Your task to perform on an android device: Open battery settings Image 0: 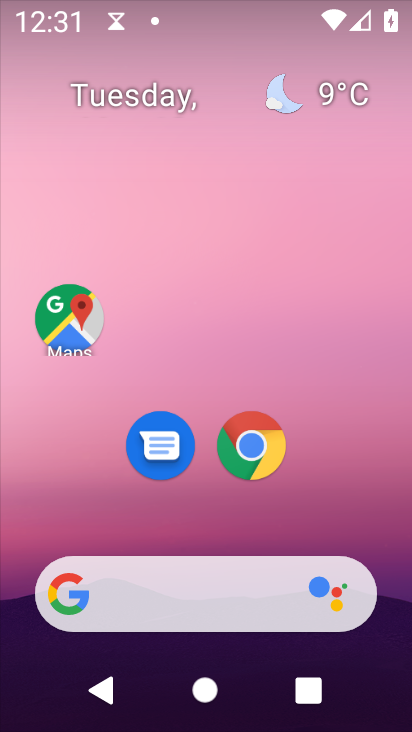
Step 0: drag from (244, 621) to (287, 2)
Your task to perform on an android device: Open battery settings Image 1: 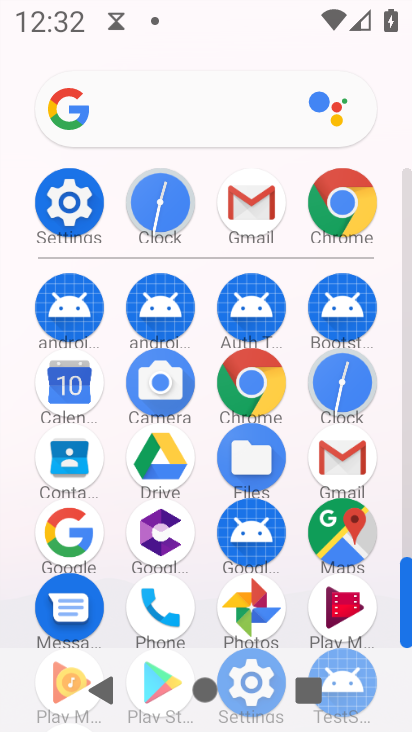
Step 1: click (75, 205)
Your task to perform on an android device: Open battery settings Image 2: 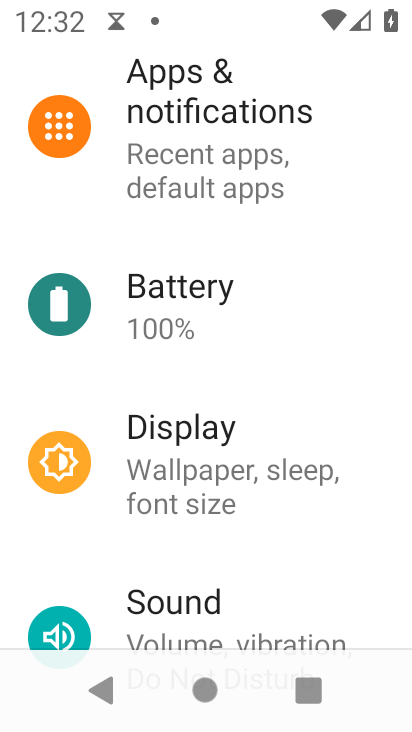
Step 2: click (205, 324)
Your task to perform on an android device: Open battery settings Image 3: 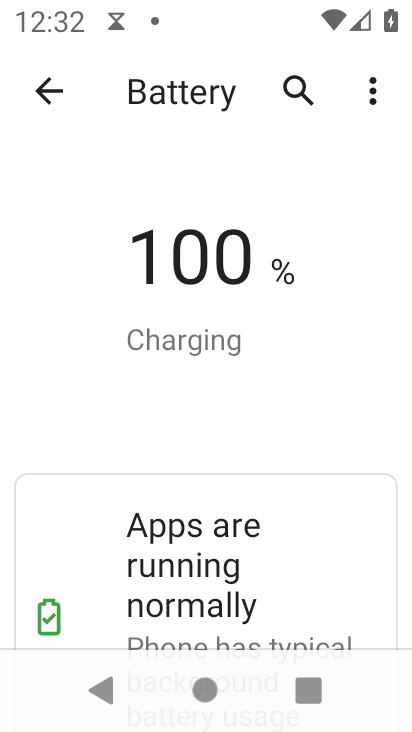
Step 3: task complete